Your task to perform on an android device: toggle notifications settings in the gmail app Image 0: 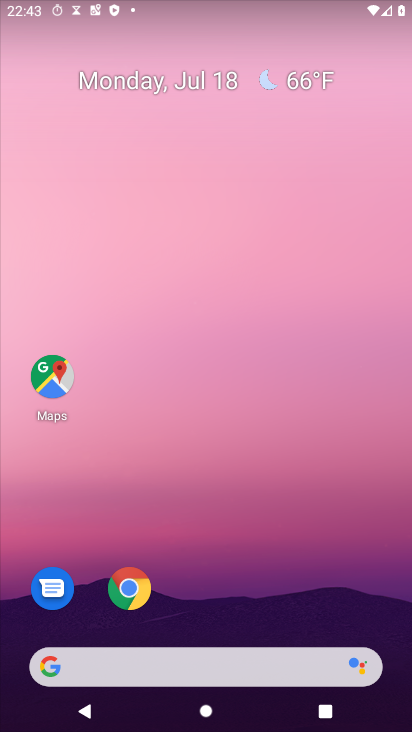
Step 0: drag from (188, 672) to (323, 58)
Your task to perform on an android device: toggle notifications settings in the gmail app Image 1: 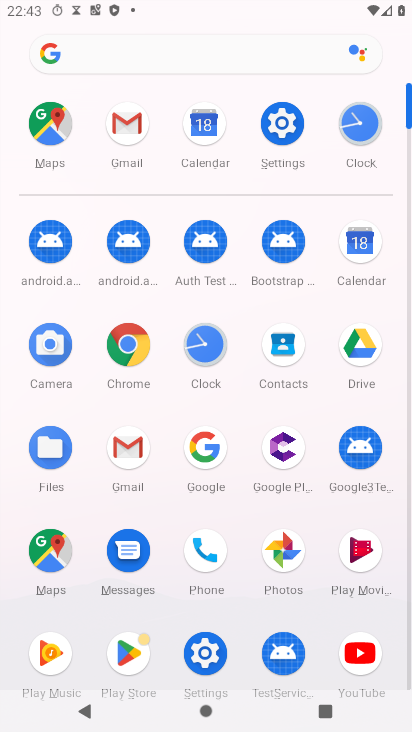
Step 1: click (125, 132)
Your task to perform on an android device: toggle notifications settings in the gmail app Image 2: 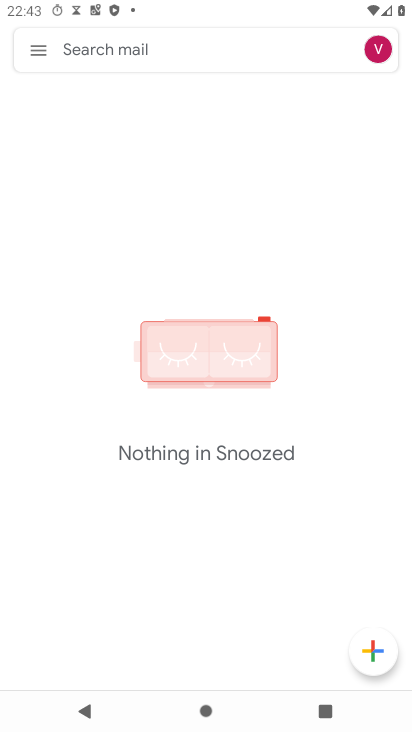
Step 2: click (36, 44)
Your task to perform on an android device: toggle notifications settings in the gmail app Image 3: 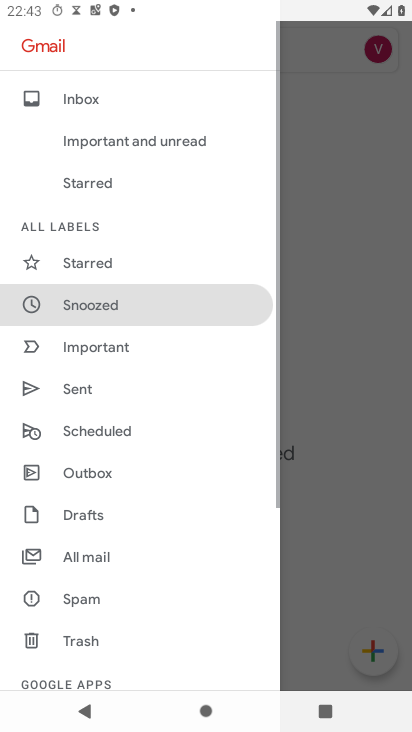
Step 3: drag from (162, 604) to (242, 53)
Your task to perform on an android device: toggle notifications settings in the gmail app Image 4: 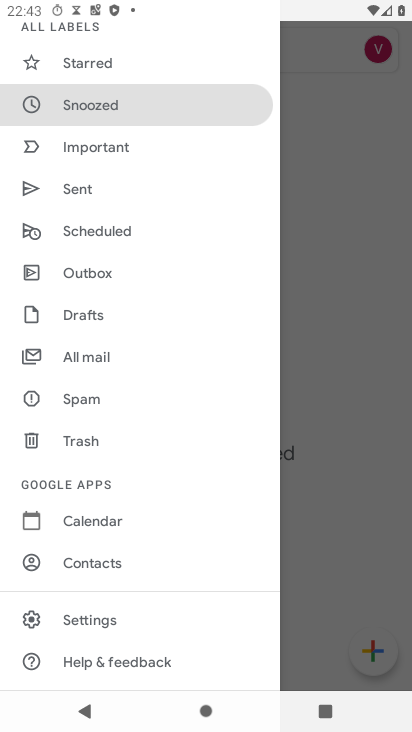
Step 4: click (111, 624)
Your task to perform on an android device: toggle notifications settings in the gmail app Image 5: 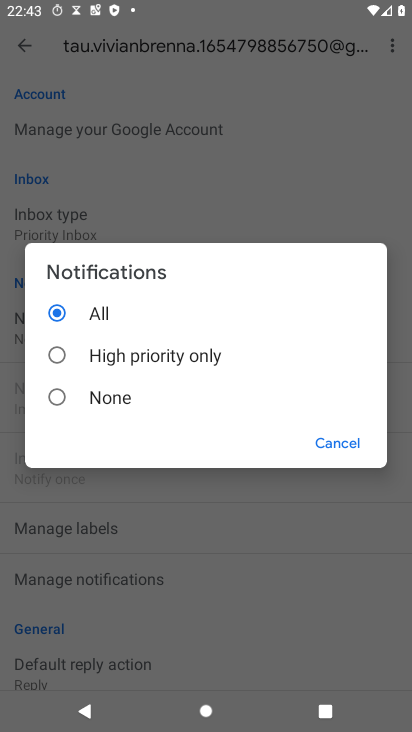
Step 5: click (55, 393)
Your task to perform on an android device: toggle notifications settings in the gmail app Image 6: 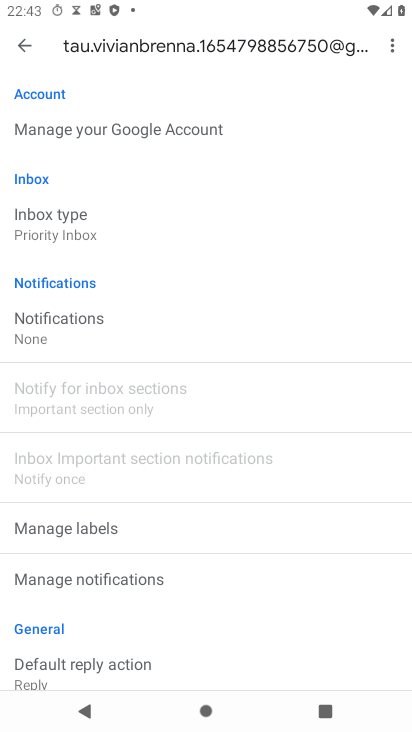
Step 6: task complete